Your task to perform on an android device: open chrome privacy settings Image 0: 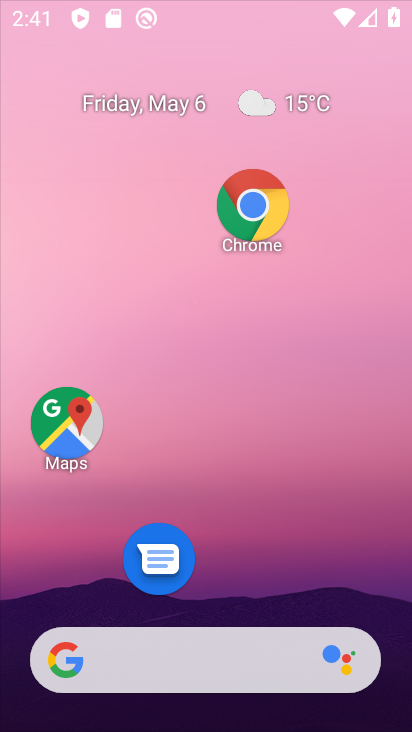
Step 0: drag from (311, 566) to (306, 158)
Your task to perform on an android device: open chrome privacy settings Image 1: 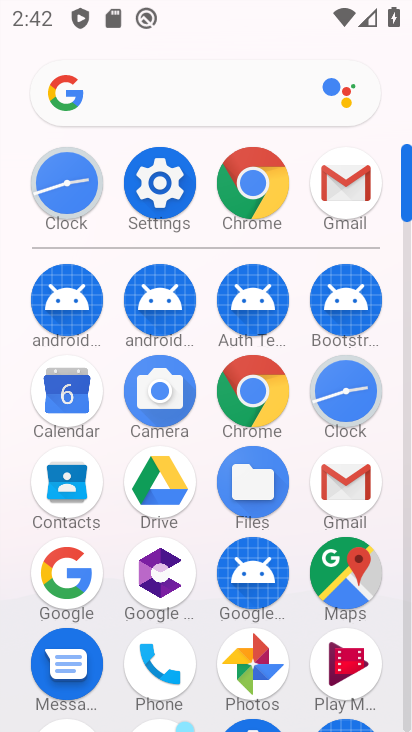
Step 1: click (250, 206)
Your task to perform on an android device: open chrome privacy settings Image 2: 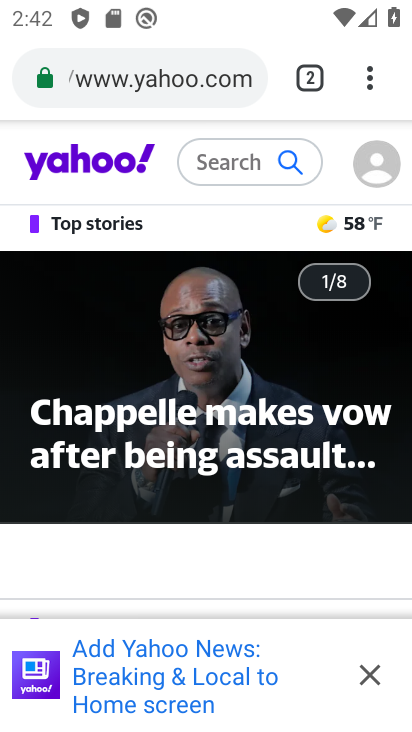
Step 2: click (378, 72)
Your task to perform on an android device: open chrome privacy settings Image 3: 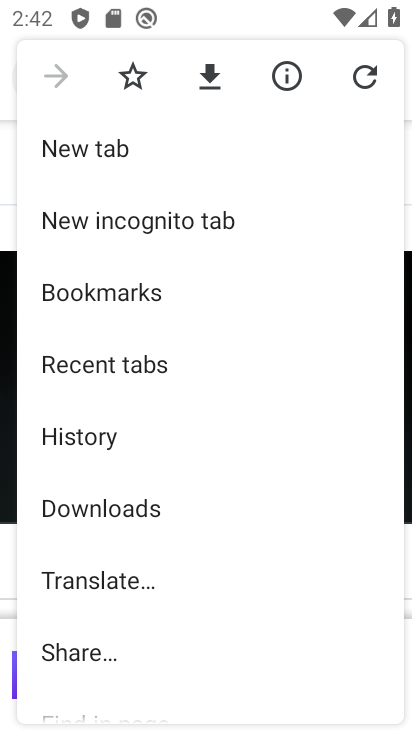
Step 3: drag from (129, 624) to (154, 286)
Your task to perform on an android device: open chrome privacy settings Image 4: 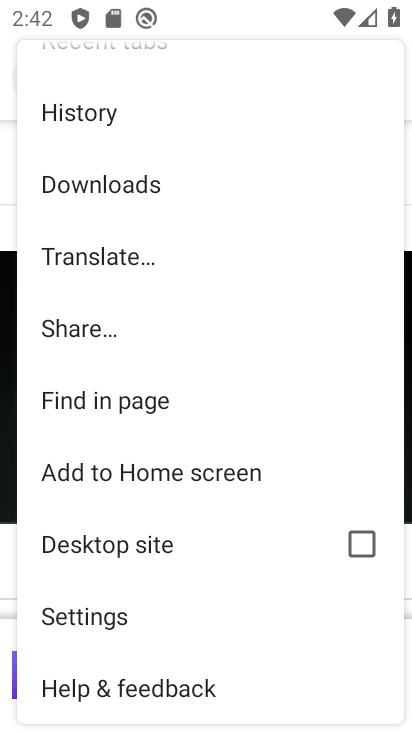
Step 4: click (174, 619)
Your task to perform on an android device: open chrome privacy settings Image 5: 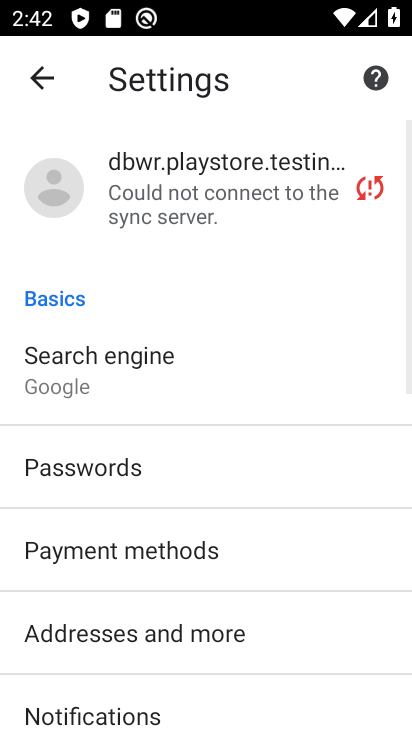
Step 5: drag from (174, 619) to (204, 262)
Your task to perform on an android device: open chrome privacy settings Image 6: 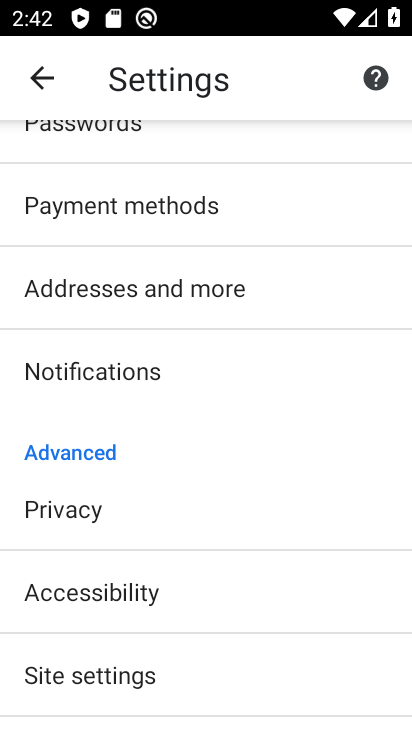
Step 6: click (130, 558)
Your task to perform on an android device: open chrome privacy settings Image 7: 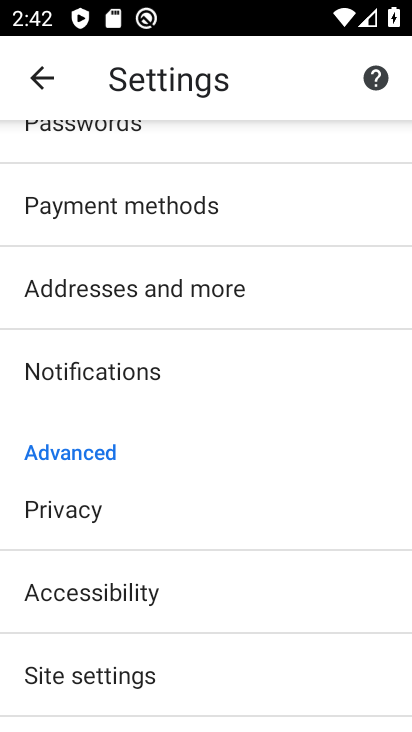
Step 7: click (130, 558)
Your task to perform on an android device: open chrome privacy settings Image 8: 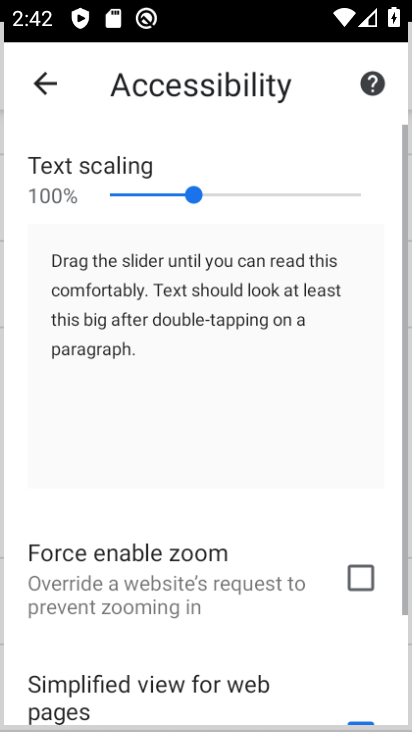
Step 8: click (132, 549)
Your task to perform on an android device: open chrome privacy settings Image 9: 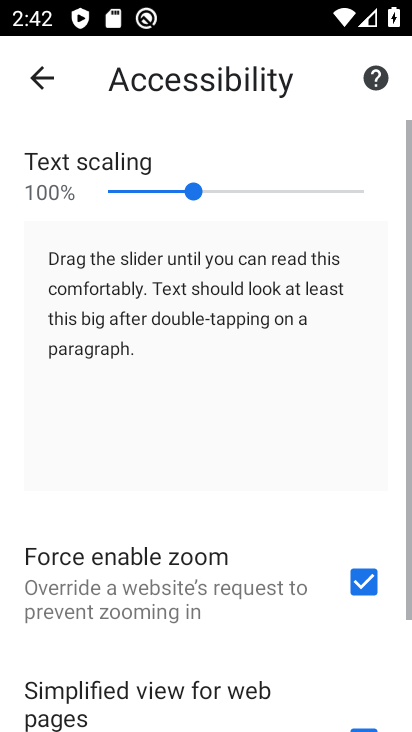
Step 9: click (46, 72)
Your task to perform on an android device: open chrome privacy settings Image 10: 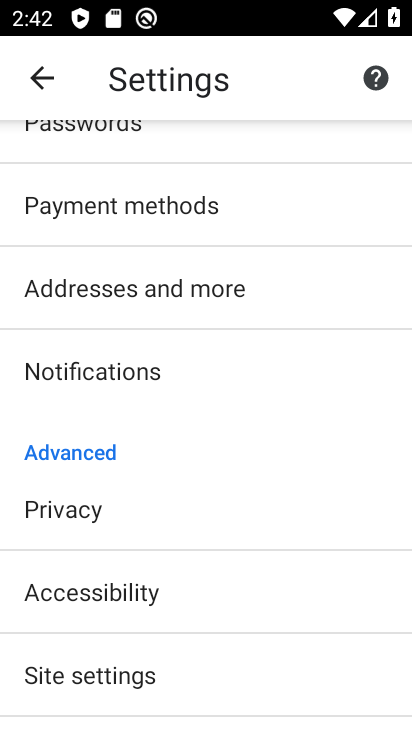
Step 10: click (77, 516)
Your task to perform on an android device: open chrome privacy settings Image 11: 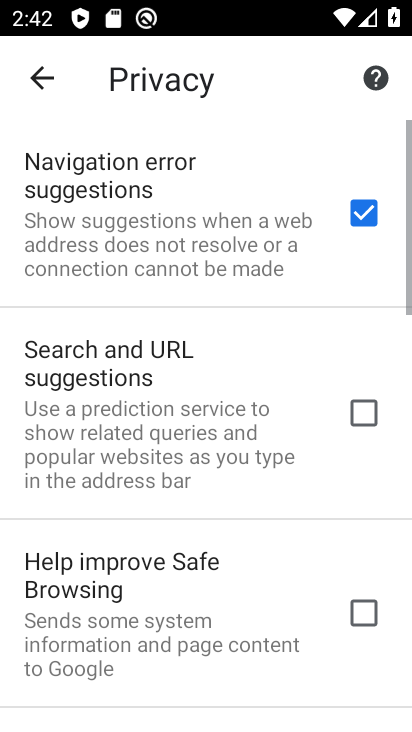
Step 11: task complete